Your task to perform on an android device: turn off picture-in-picture Image 0: 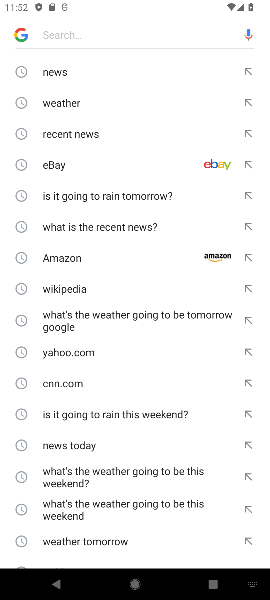
Step 0: press home button
Your task to perform on an android device: turn off picture-in-picture Image 1: 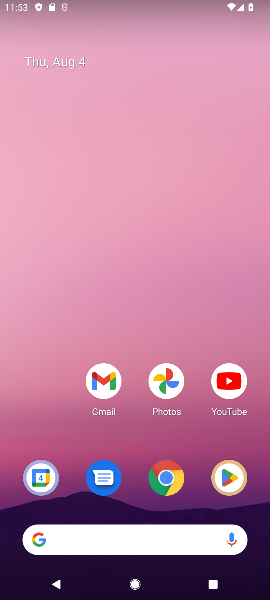
Step 1: click (172, 471)
Your task to perform on an android device: turn off picture-in-picture Image 2: 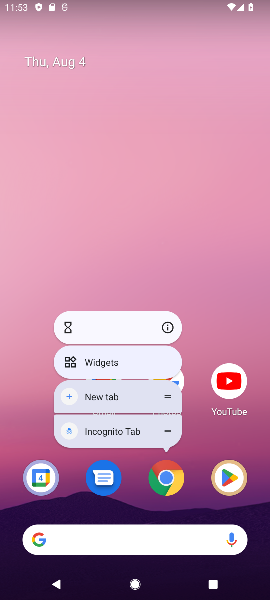
Step 2: click (166, 327)
Your task to perform on an android device: turn off picture-in-picture Image 3: 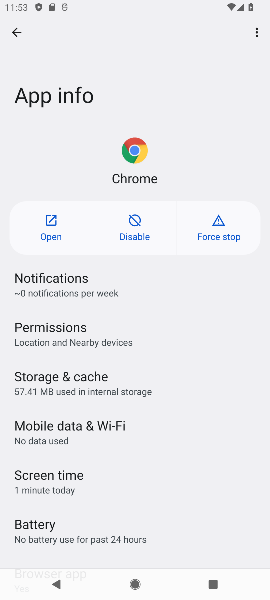
Step 3: press home button
Your task to perform on an android device: turn off picture-in-picture Image 4: 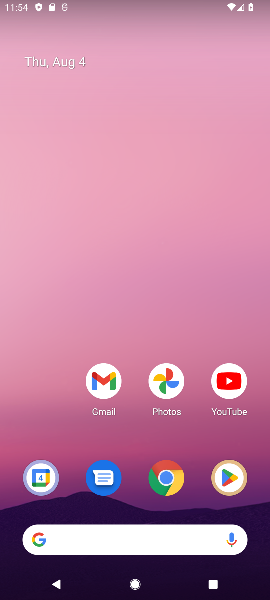
Step 4: drag from (145, 451) to (248, 154)
Your task to perform on an android device: turn off picture-in-picture Image 5: 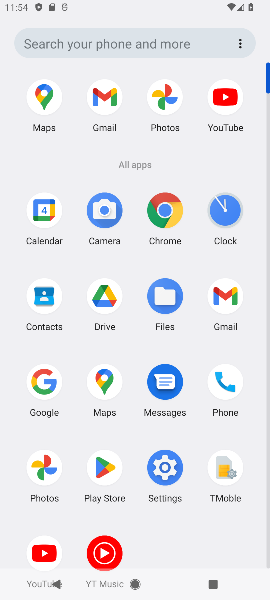
Step 5: click (163, 222)
Your task to perform on an android device: turn off picture-in-picture Image 6: 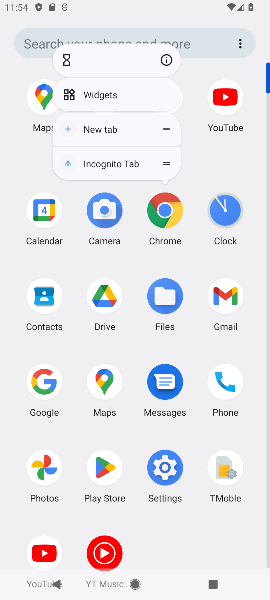
Step 6: click (166, 52)
Your task to perform on an android device: turn off picture-in-picture Image 7: 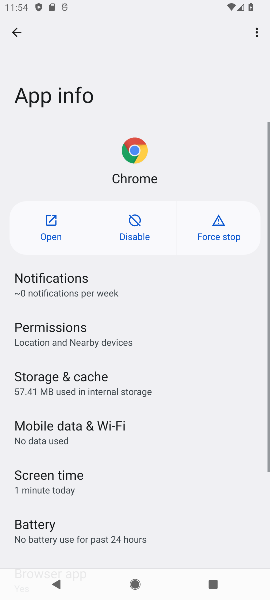
Step 7: drag from (135, 490) to (163, 321)
Your task to perform on an android device: turn off picture-in-picture Image 8: 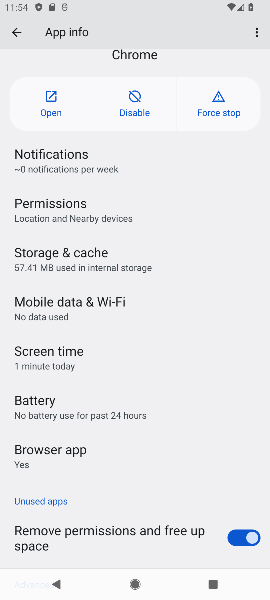
Step 8: drag from (97, 463) to (131, 303)
Your task to perform on an android device: turn off picture-in-picture Image 9: 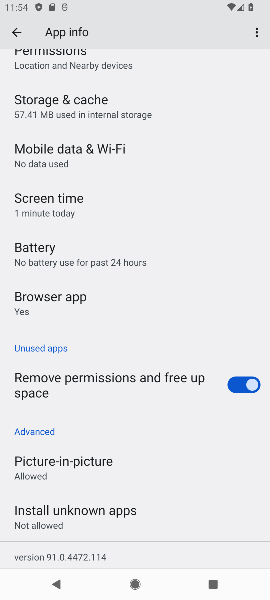
Step 9: click (72, 465)
Your task to perform on an android device: turn off picture-in-picture Image 10: 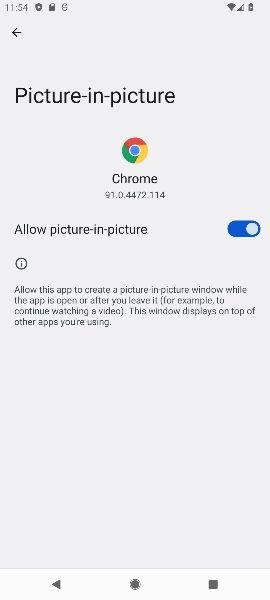
Step 10: click (192, 217)
Your task to perform on an android device: turn off picture-in-picture Image 11: 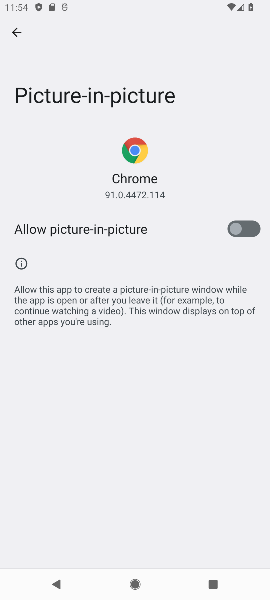
Step 11: task complete